Your task to perform on an android device: How do I get to the nearest Chipotle? Image 0: 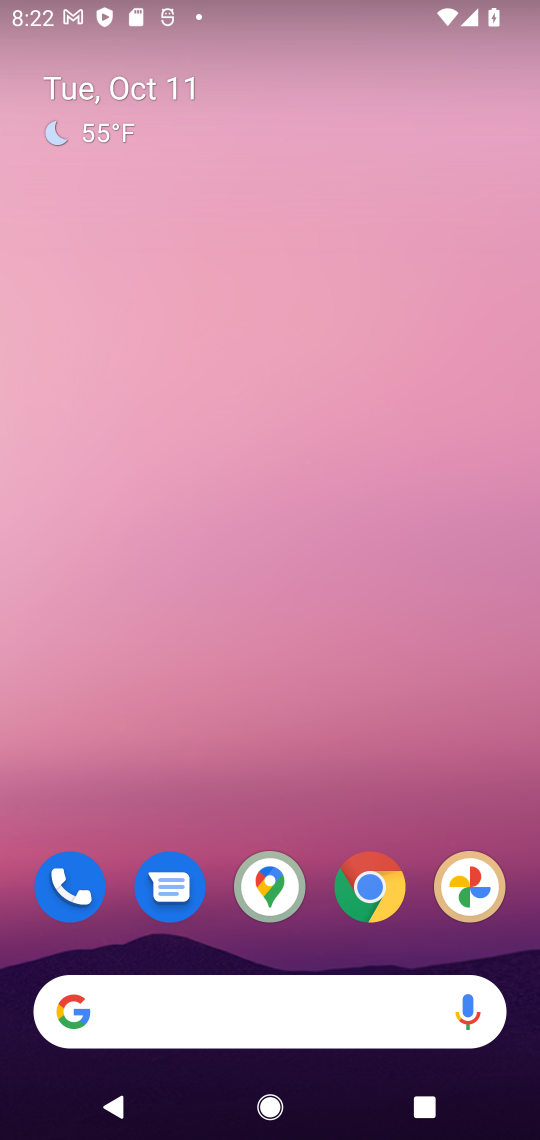
Step 0: click (386, 910)
Your task to perform on an android device: How do I get to the nearest Chipotle? Image 1: 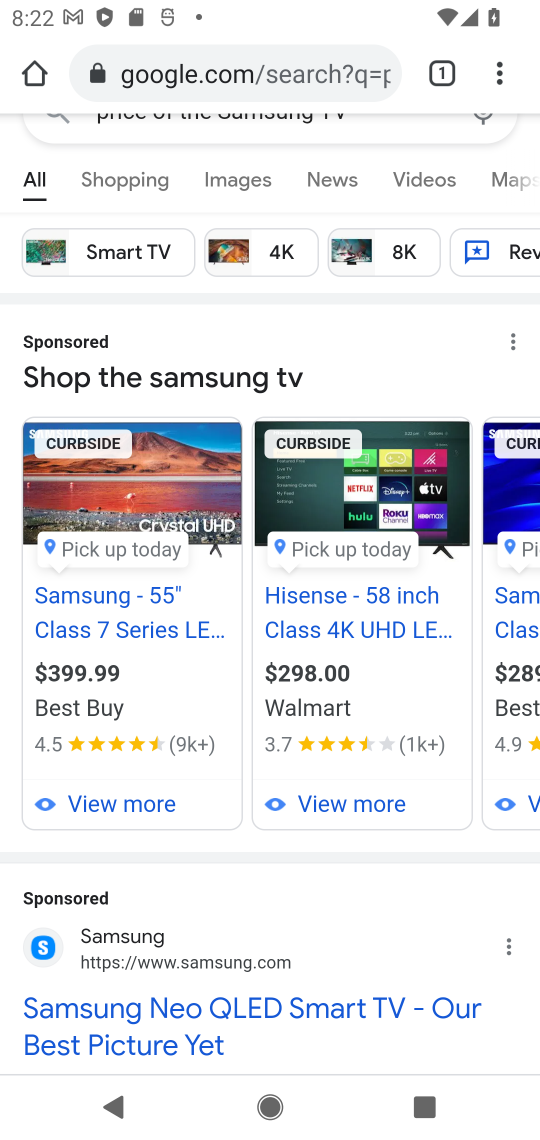
Step 1: click (284, 64)
Your task to perform on an android device: How do I get to the nearest Chipotle? Image 2: 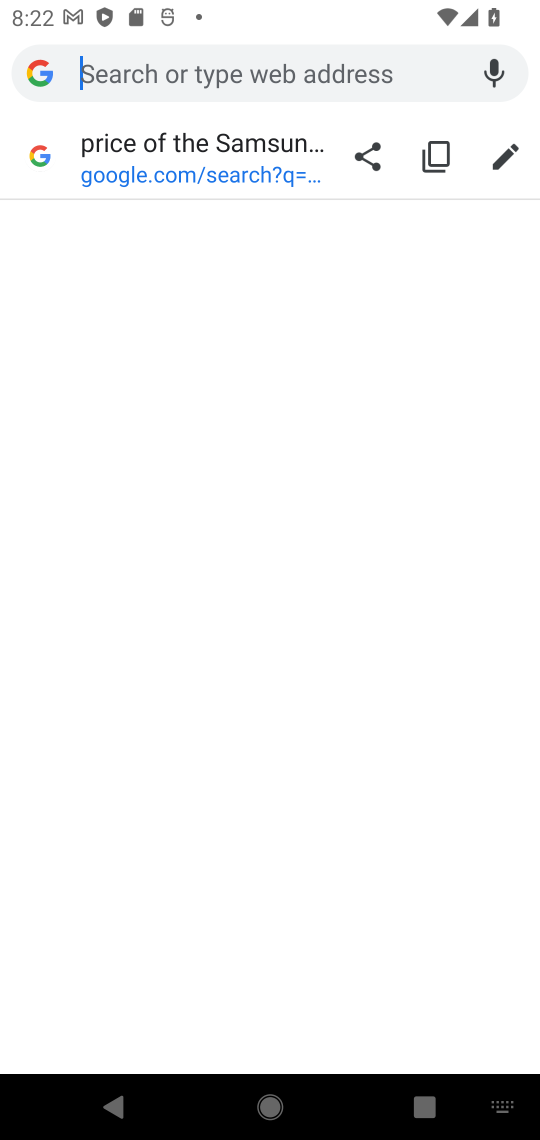
Step 2: click (284, 64)
Your task to perform on an android device: How do I get to the nearest Chipotle? Image 3: 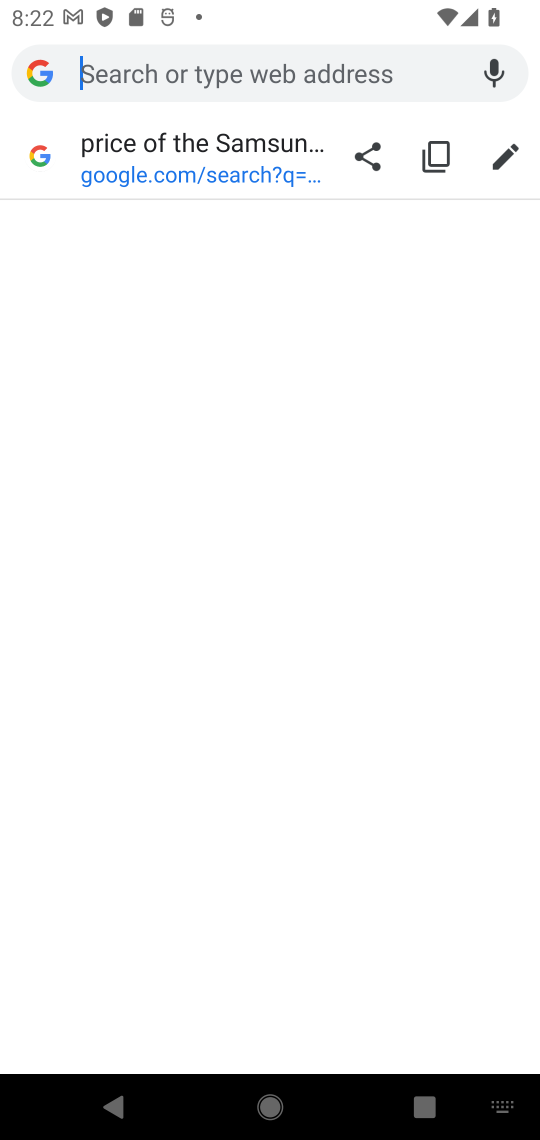
Step 3: type "How do I get to the nearest Chipotle?"
Your task to perform on an android device: How do I get to the nearest Chipotle? Image 4: 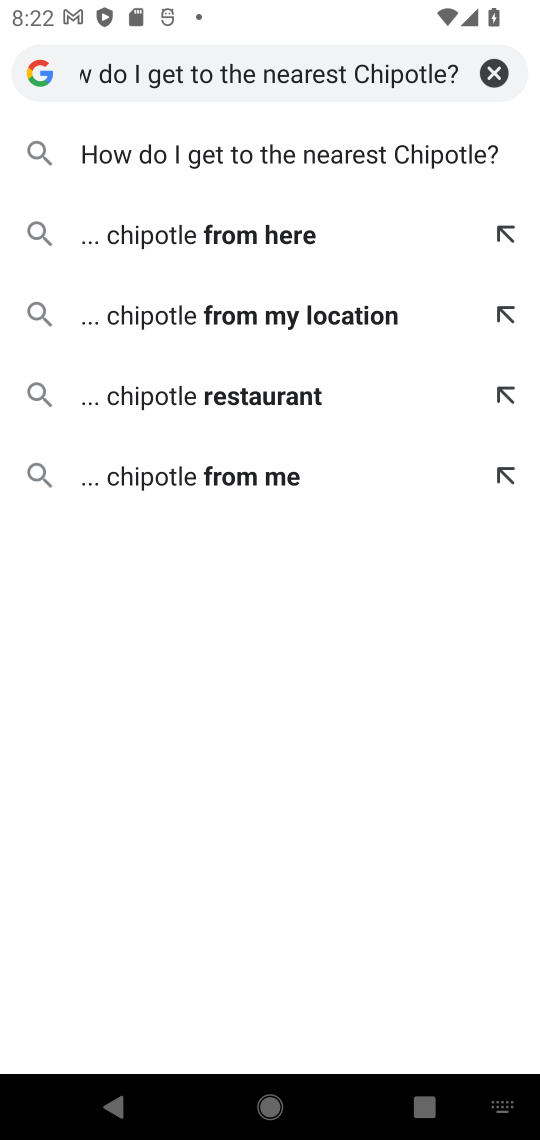
Step 4: click (345, 163)
Your task to perform on an android device: How do I get to the nearest Chipotle? Image 5: 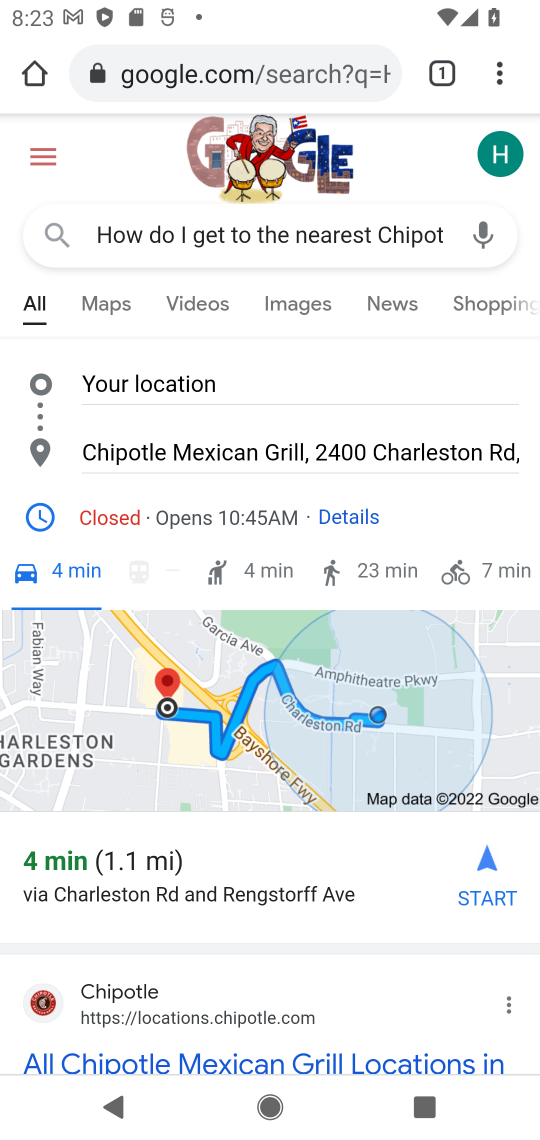
Step 5: task complete